Your task to perform on an android device: set the stopwatch Image 0: 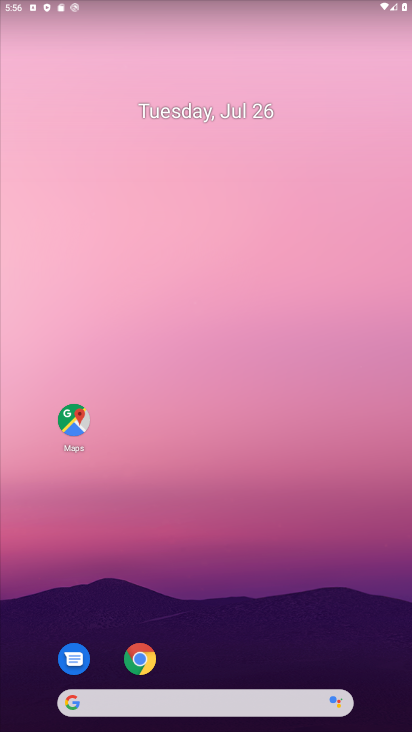
Step 0: drag from (305, 570) to (303, 251)
Your task to perform on an android device: set the stopwatch Image 1: 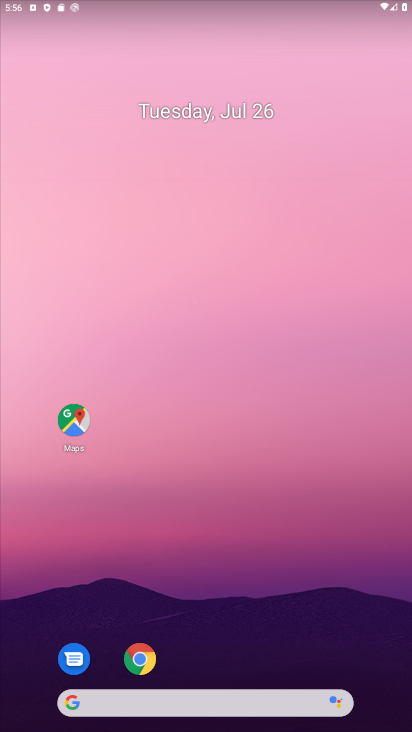
Step 1: drag from (278, 586) to (368, 42)
Your task to perform on an android device: set the stopwatch Image 2: 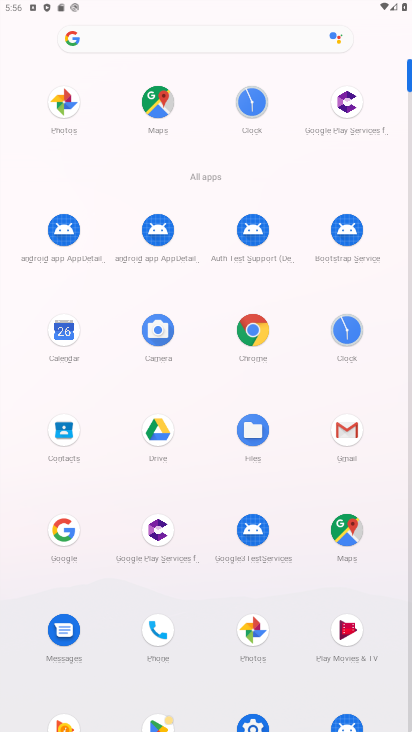
Step 2: click (345, 336)
Your task to perform on an android device: set the stopwatch Image 3: 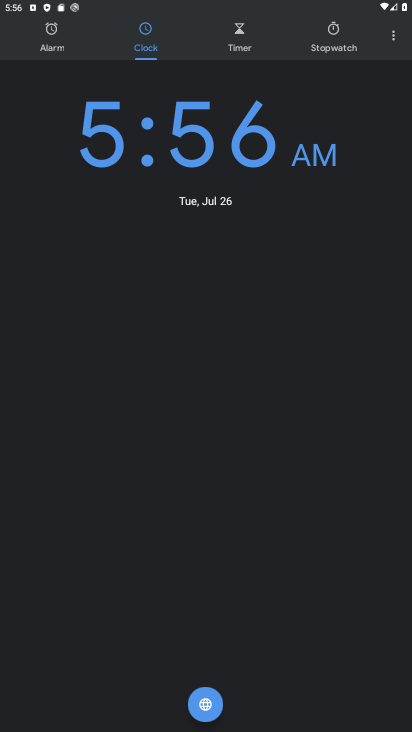
Step 3: task complete